Your task to perform on an android device: change your default location settings in chrome Image 0: 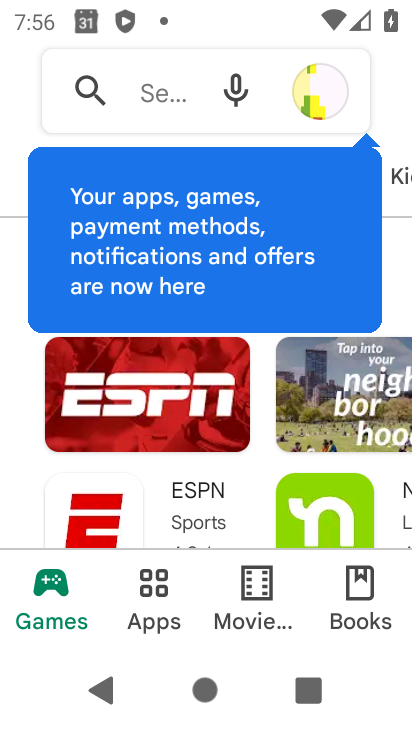
Step 0: press home button
Your task to perform on an android device: change your default location settings in chrome Image 1: 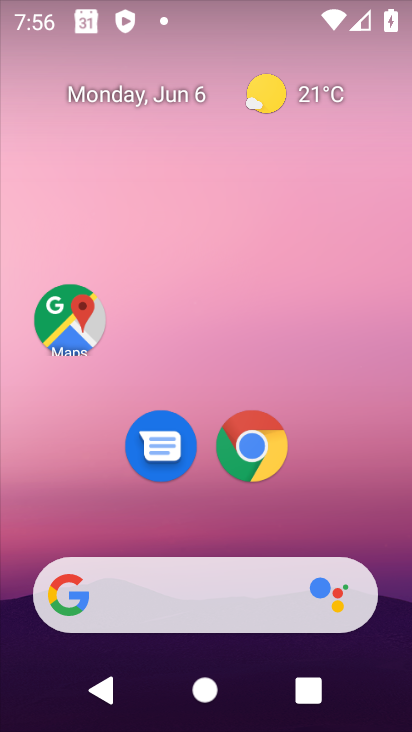
Step 1: click (250, 450)
Your task to perform on an android device: change your default location settings in chrome Image 2: 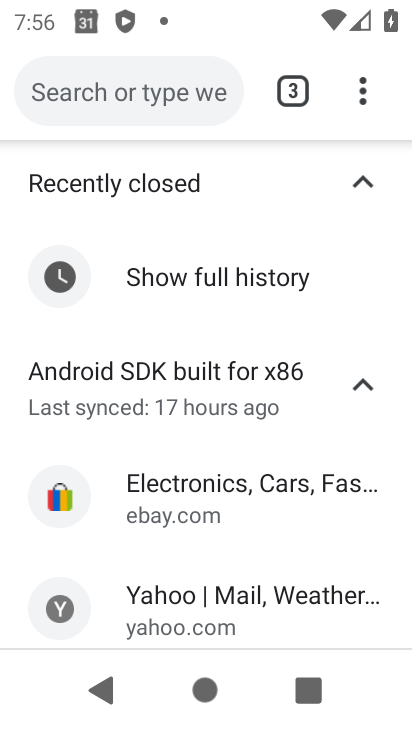
Step 2: click (362, 83)
Your task to perform on an android device: change your default location settings in chrome Image 3: 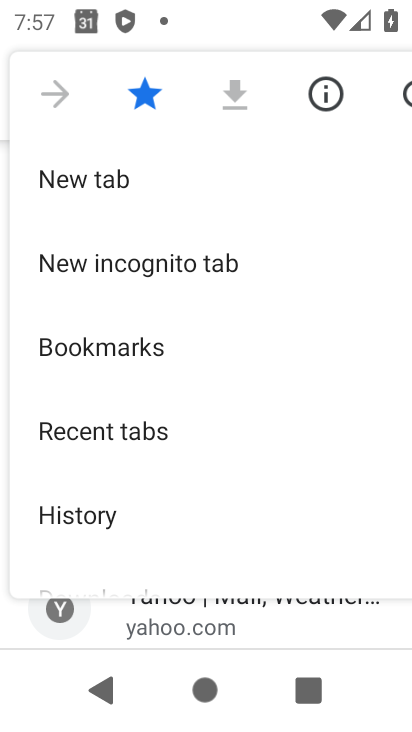
Step 3: drag from (294, 445) to (289, 278)
Your task to perform on an android device: change your default location settings in chrome Image 4: 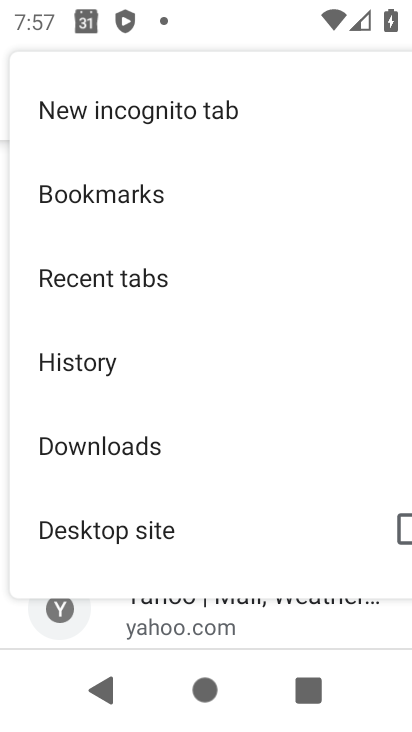
Step 4: drag from (242, 511) to (233, 317)
Your task to perform on an android device: change your default location settings in chrome Image 5: 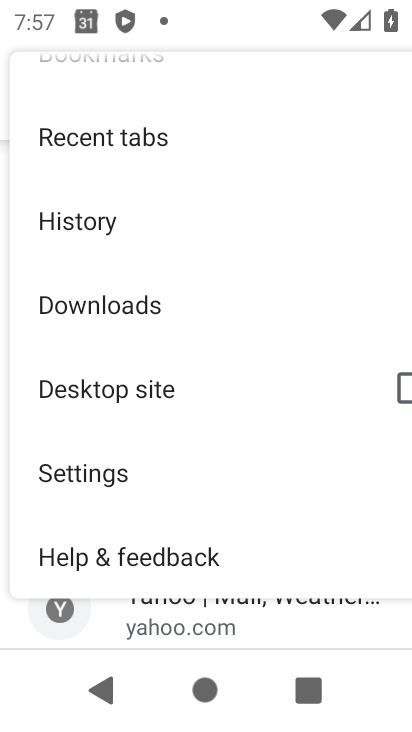
Step 5: click (106, 481)
Your task to perform on an android device: change your default location settings in chrome Image 6: 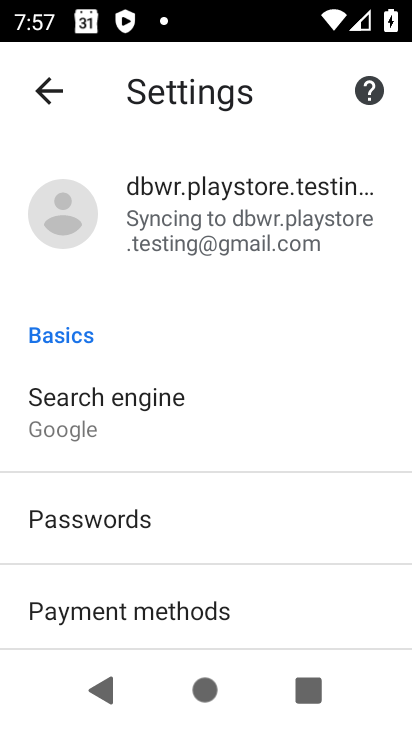
Step 6: drag from (186, 555) to (194, 290)
Your task to perform on an android device: change your default location settings in chrome Image 7: 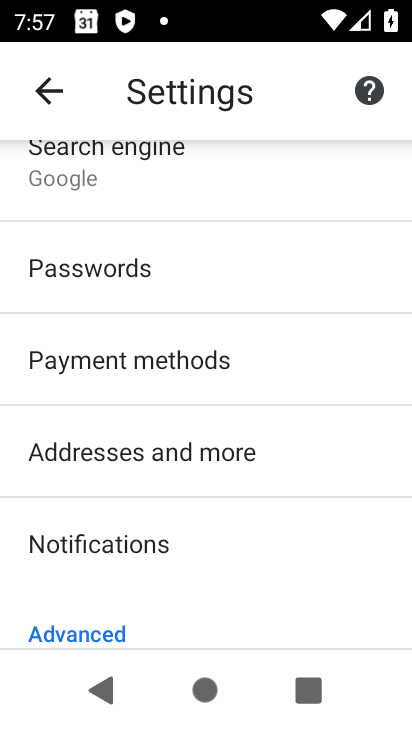
Step 7: drag from (217, 526) to (241, 351)
Your task to perform on an android device: change your default location settings in chrome Image 8: 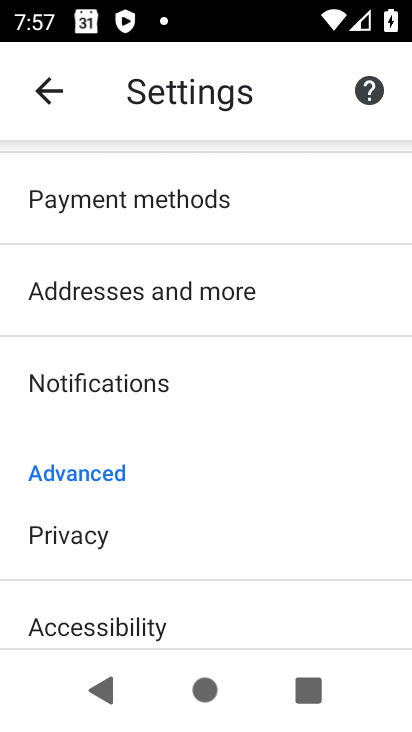
Step 8: drag from (246, 452) to (313, 235)
Your task to perform on an android device: change your default location settings in chrome Image 9: 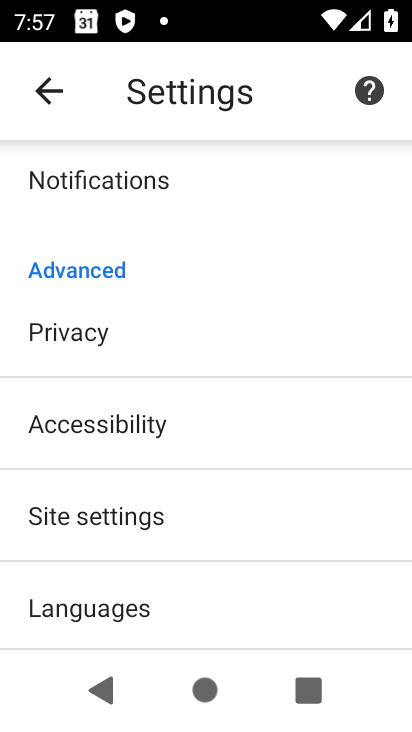
Step 9: click (91, 509)
Your task to perform on an android device: change your default location settings in chrome Image 10: 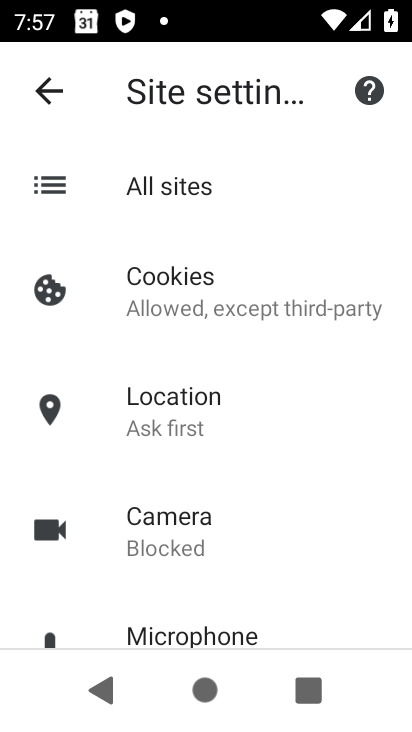
Step 10: click (175, 395)
Your task to perform on an android device: change your default location settings in chrome Image 11: 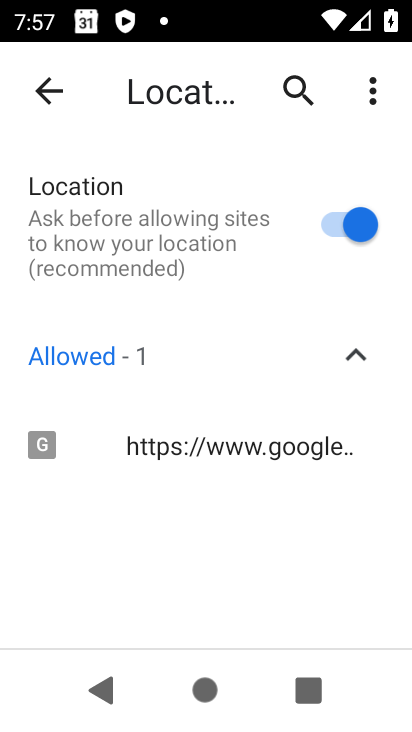
Step 11: click (350, 353)
Your task to perform on an android device: change your default location settings in chrome Image 12: 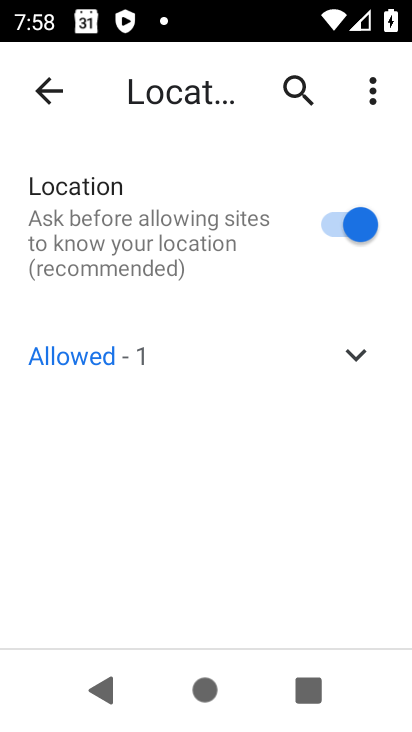
Step 12: click (350, 353)
Your task to perform on an android device: change your default location settings in chrome Image 13: 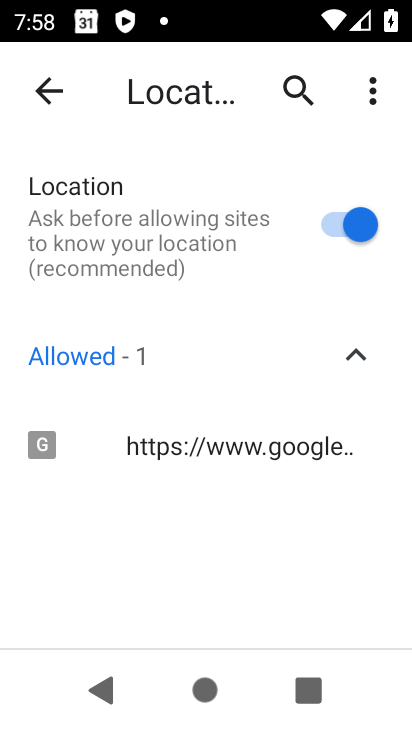
Step 13: task complete